Your task to perform on an android device: Go to wifi settings Image 0: 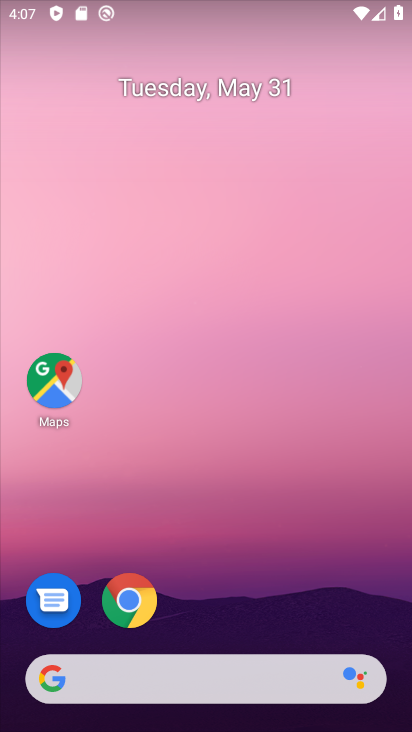
Step 0: press home button
Your task to perform on an android device: Go to wifi settings Image 1: 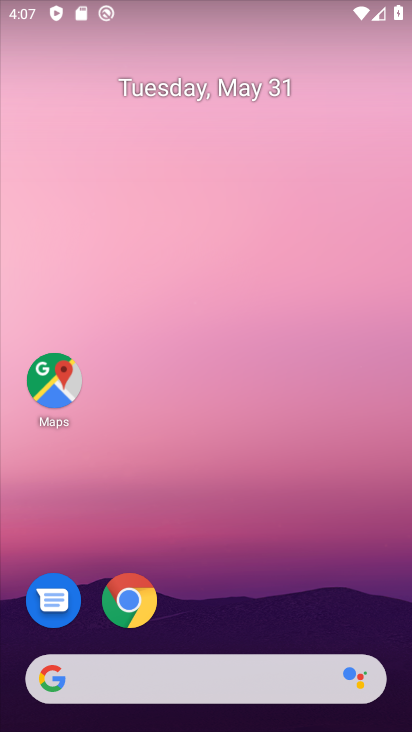
Step 1: drag from (307, 5) to (301, 723)
Your task to perform on an android device: Go to wifi settings Image 2: 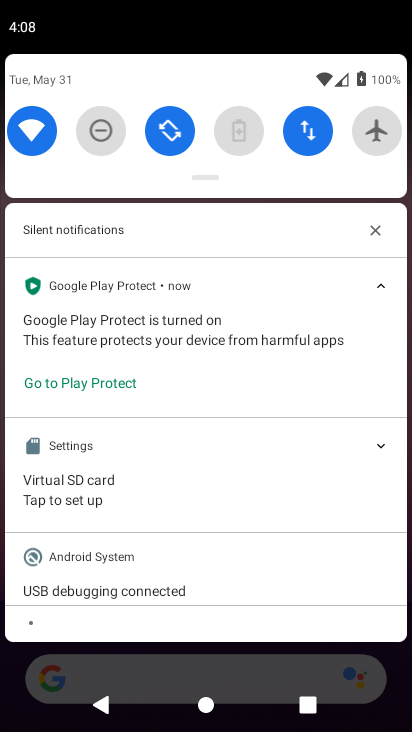
Step 2: click (31, 139)
Your task to perform on an android device: Go to wifi settings Image 3: 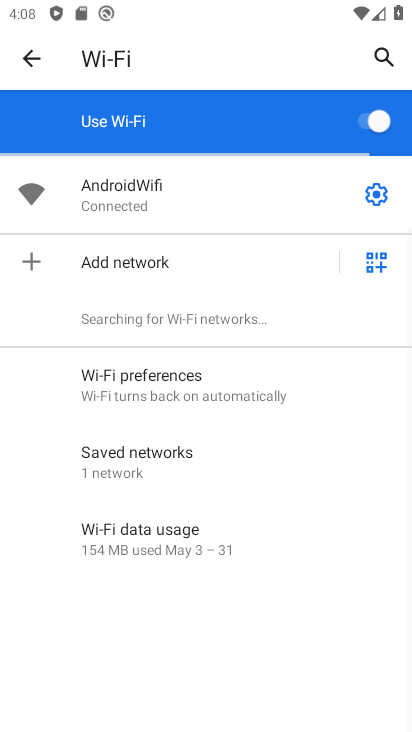
Step 3: task complete